Your task to perform on an android device: toggle notification dots Image 0: 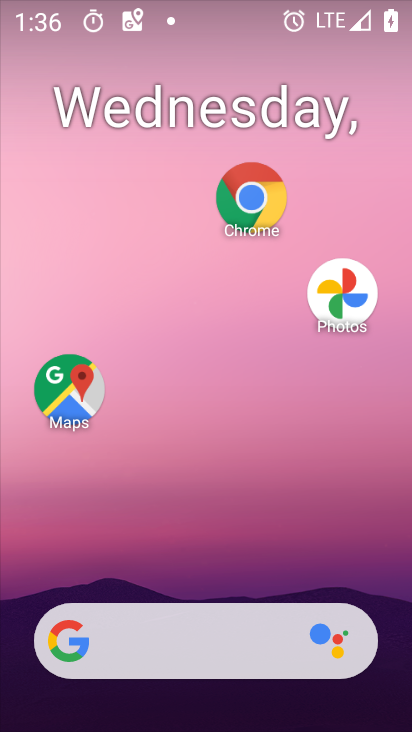
Step 0: drag from (174, 600) to (258, 85)
Your task to perform on an android device: toggle notification dots Image 1: 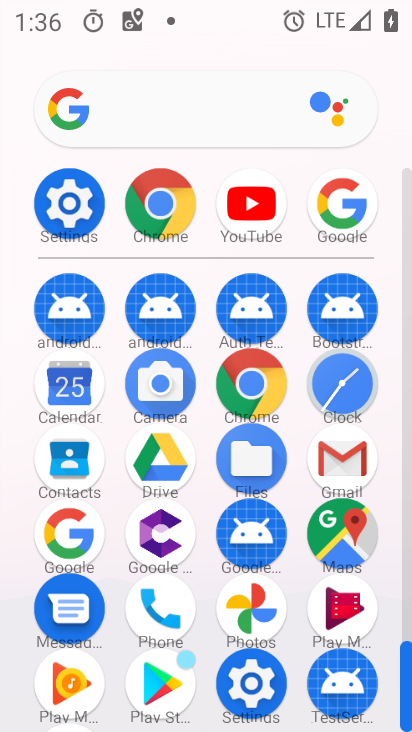
Step 1: click (73, 222)
Your task to perform on an android device: toggle notification dots Image 2: 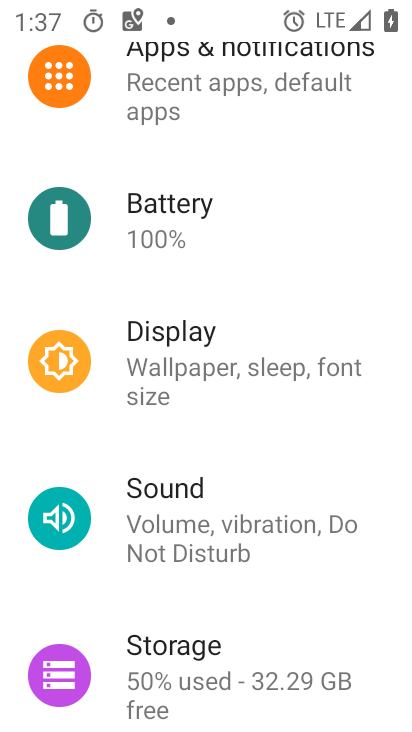
Step 2: click (215, 98)
Your task to perform on an android device: toggle notification dots Image 3: 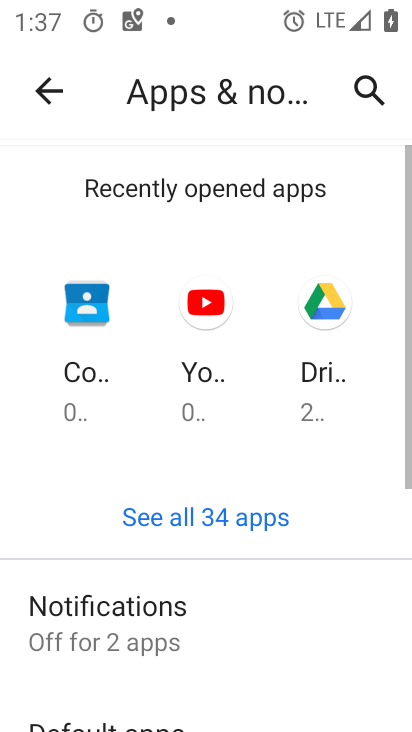
Step 3: click (210, 624)
Your task to perform on an android device: toggle notification dots Image 4: 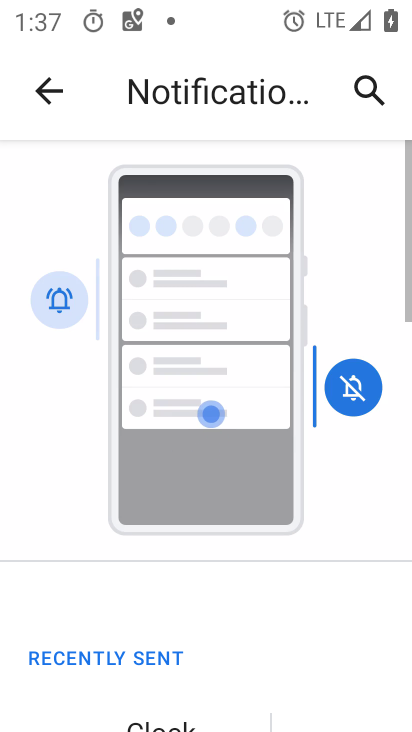
Step 4: drag from (215, 613) to (248, 125)
Your task to perform on an android device: toggle notification dots Image 5: 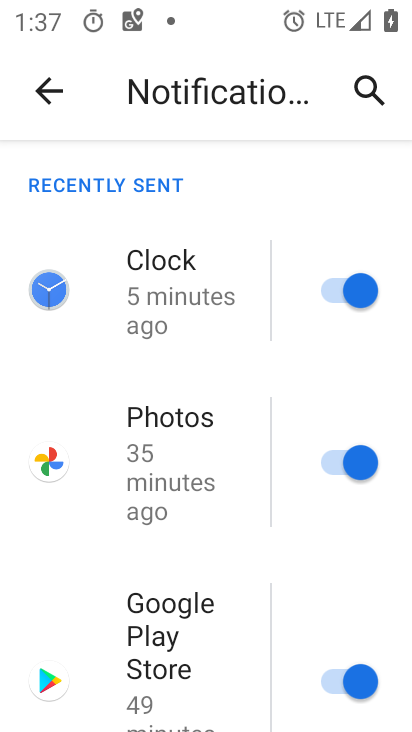
Step 5: drag from (204, 563) to (231, 144)
Your task to perform on an android device: toggle notification dots Image 6: 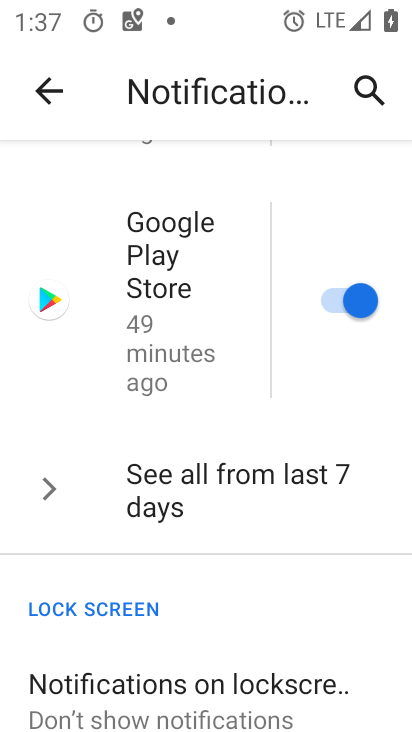
Step 6: drag from (195, 552) to (241, 234)
Your task to perform on an android device: toggle notification dots Image 7: 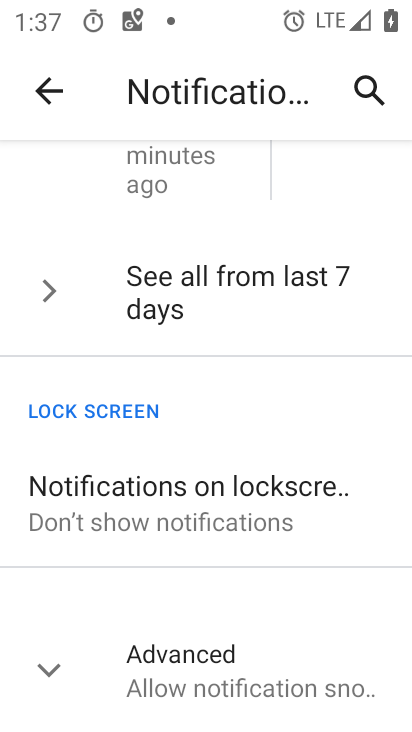
Step 7: click (207, 673)
Your task to perform on an android device: toggle notification dots Image 8: 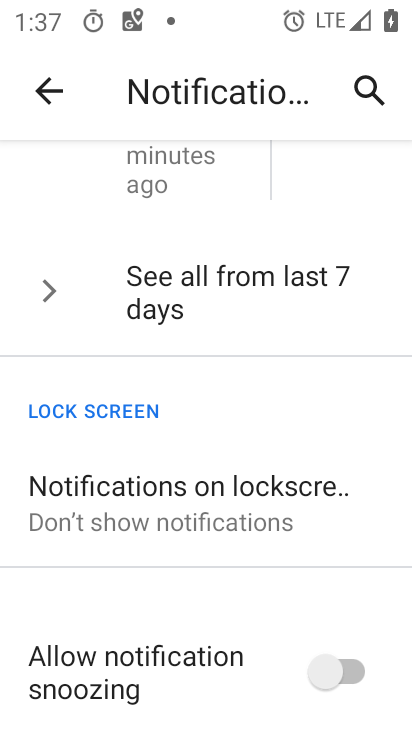
Step 8: drag from (163, 655) to (218, 249)
Your task to perform on an android device: toggle notification dots Image 9: 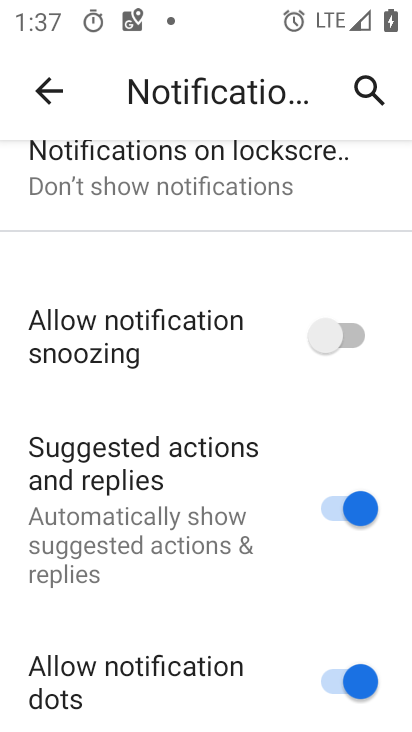
Step 9: drag from (184, 453) to (206, 289)
Your task to perform on an android device: toggle notification dots Image 10: 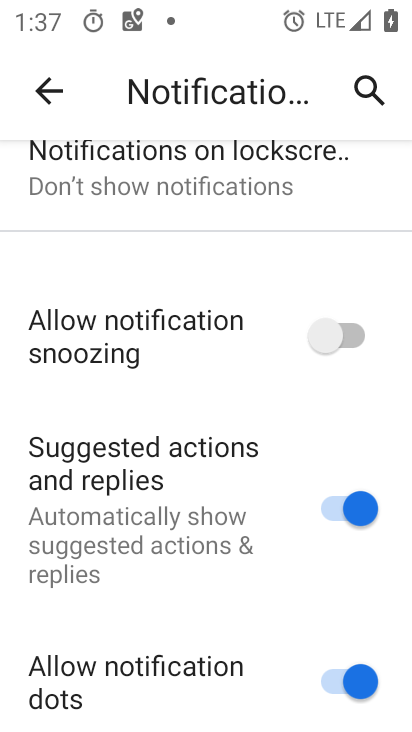
Step 10: click (327, 679)
Your task to perform on an android device: toggle notification dots Image 11: 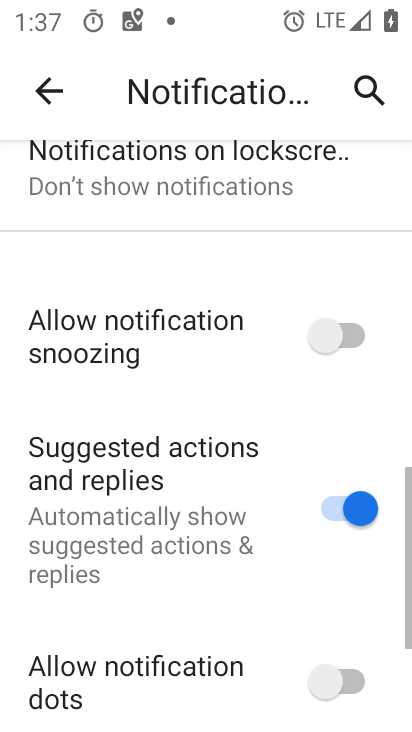
Step 11: task complete